Your task to perform on an android device: Show me productivity apps on the Play Store Image 0: 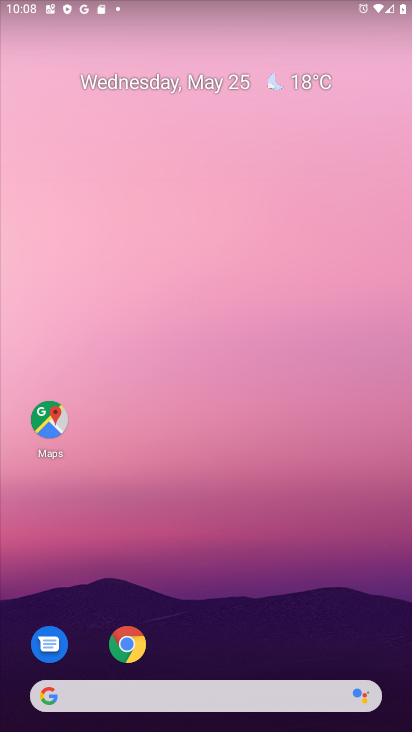
Step 0: press home button
Your task to perform on an android device: Show me productivity apps on the Play Store Image 1: 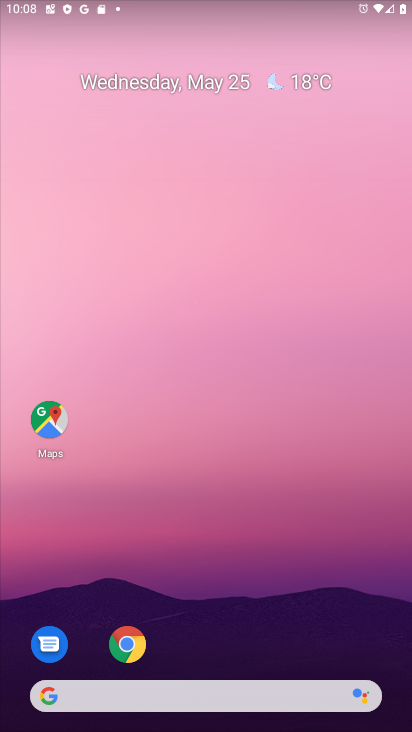
Step 1: drag from (210, 663) to (228, 148)
Your task to perform on an android device: Show me productivity apps on the Play Store Image 2: 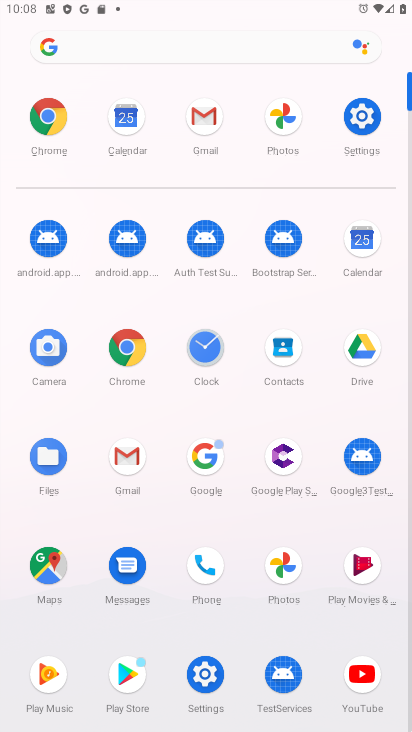
Step 2: click (127, 668)
Your task to perform on an android device: Show me productivity apps on the Play Store Image 3: 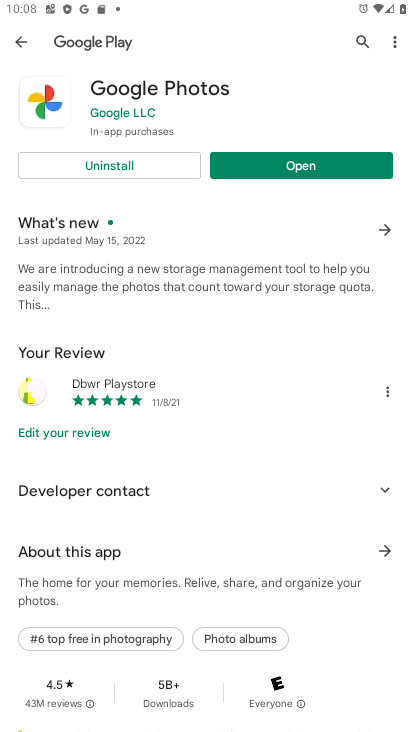
Step 3: click (23, 45)
Your task to perform on an android device: Show me productivity apps on the Play Store Image 4: 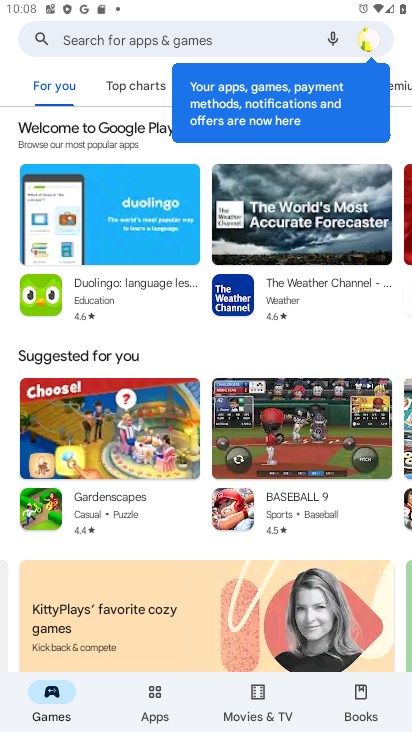
Step 4: click (150, 692)
Your task to perform on an android device: Show me productivity apps on the Play Store Image 5: 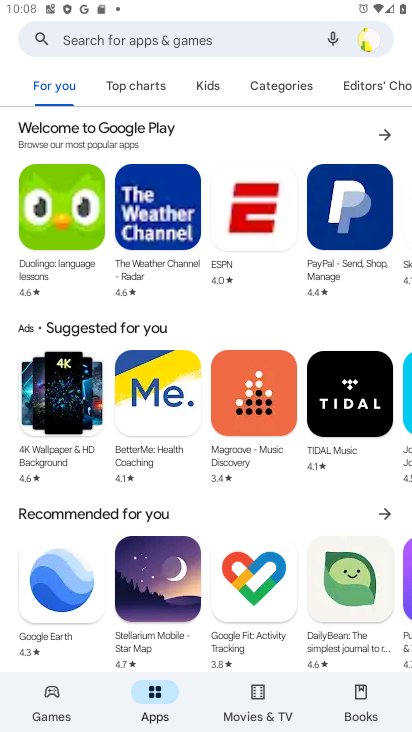
Step 5: click (280, 84)
Your task to perform on an android device: Show me productivity apps on the Play Store Image 6: 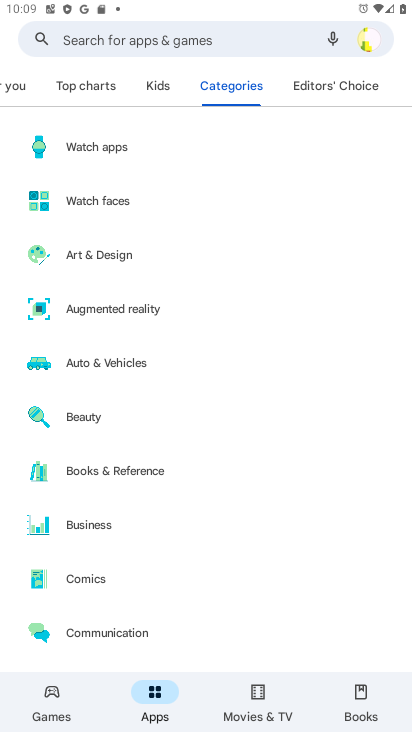
Step 6: drag from (161, 627) to (203, 80)
Your task to perform on an android device: Show me productivity apps on the Play Store Image 7: 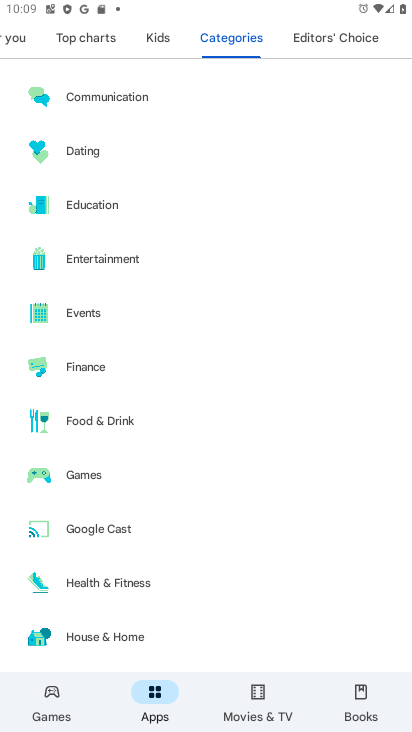
Step 7: drag from (158, 630) to (179, 89)
Your task to perform on an android device: Show me productivity apps on the Play Store Image 8: 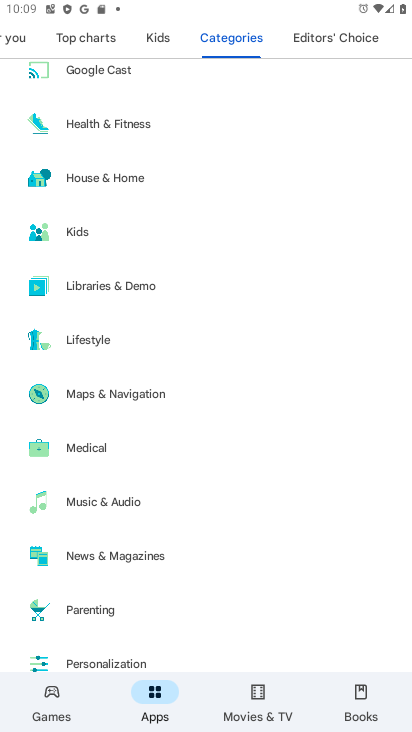
Step 8: drag from (196, 625) to (211, 113)
Your task to perform on an android device: Show me productivity apps on the Play Store Image 9: 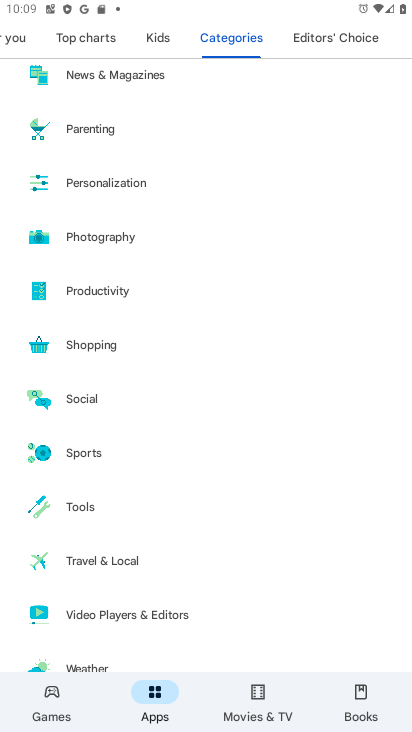
Step 9: click (149, 285)
Your task to perform on an android device: Show me productivity apps on the Play Store Image 10: 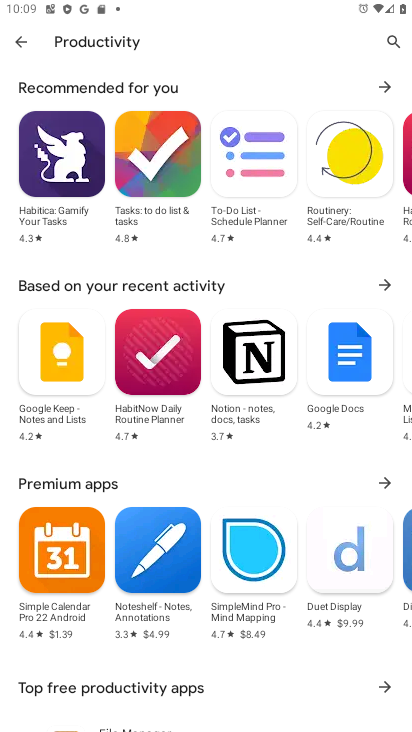
Step 10: task complete